Your task to perform on an android device: turn on the 12-hour format for clock Image 0: 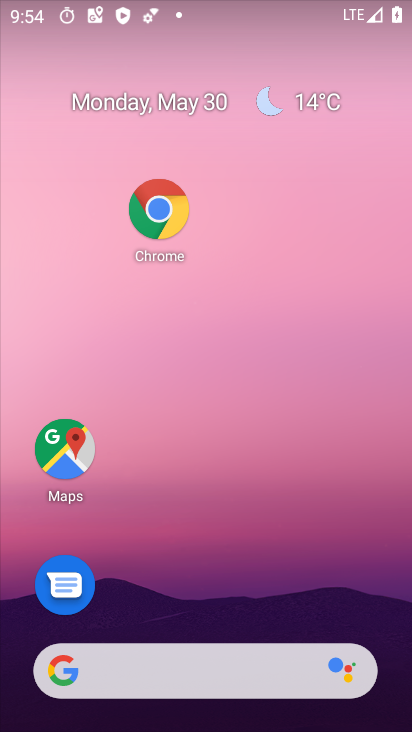
Step 0: drag from (251, 600) to (262, 2)
Your task to perform on an android device: turn on the 12-hour format for clock Image 1: 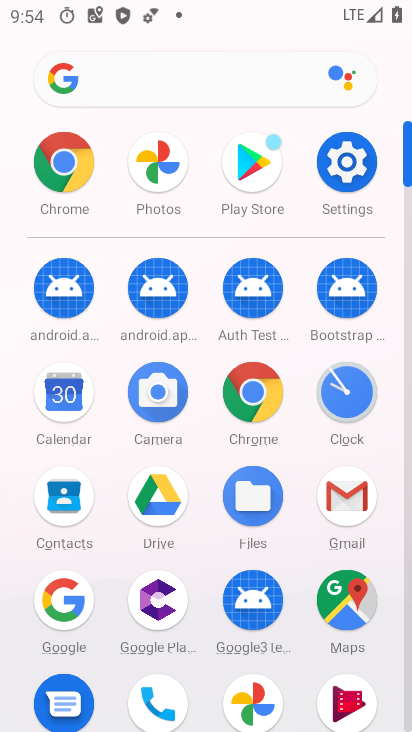
Step 1: click (344, 389)
Your task to perform on an android device: turn on the 12-hour format for clock Image 2: 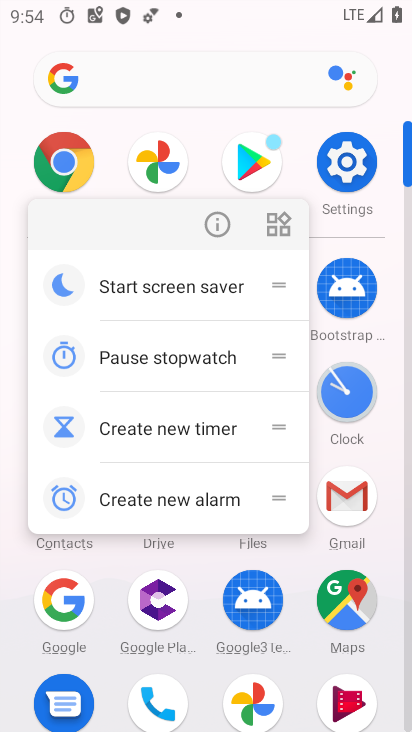
Step 2: click (211, 221)
Your task to perform on an android device: turn on the 12-hour format for clock Image 3: 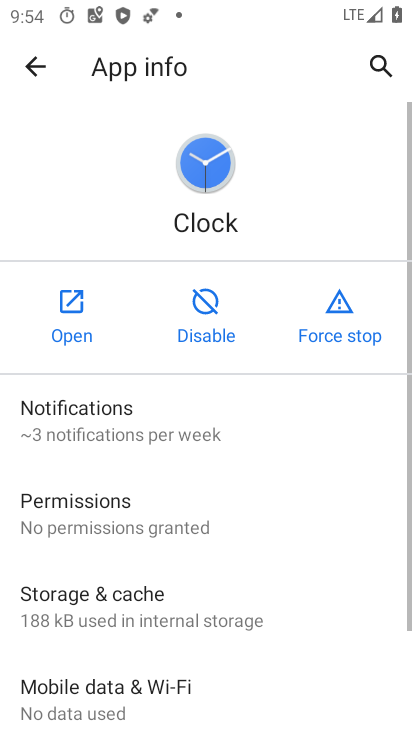
Step 3: click (79, 313)
Your task to perform on an android device: turn on the 12-hour format for clock Image 4: 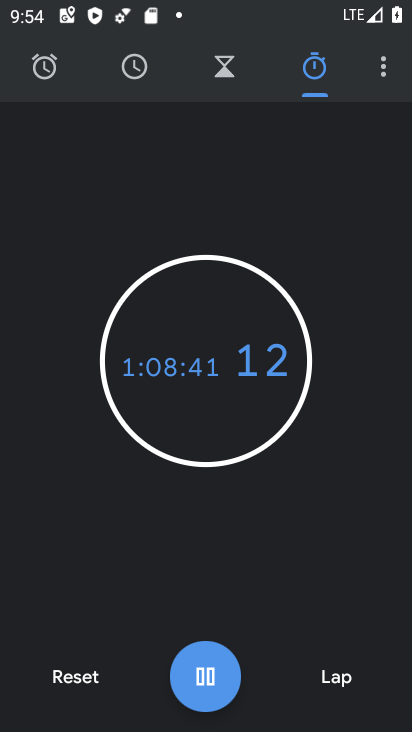
Step 4: click (386, 67)
Your task to perform on an android device: turn on the 12-hour format for clock Image 5: 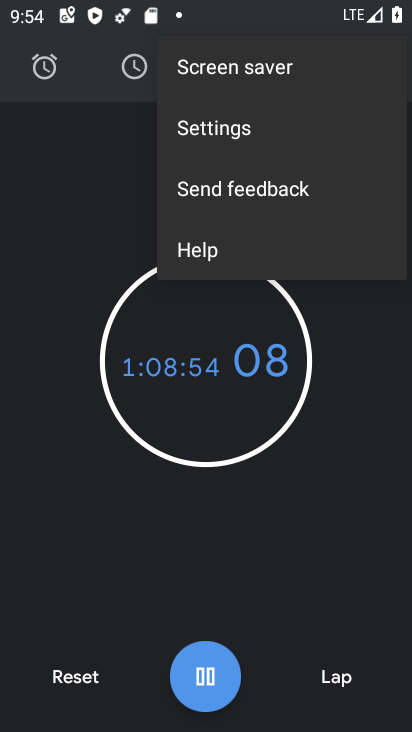
Step 5: click (240, 127)
Your task to perform on an android device: turn on the 12-hour format for clock Image 6: 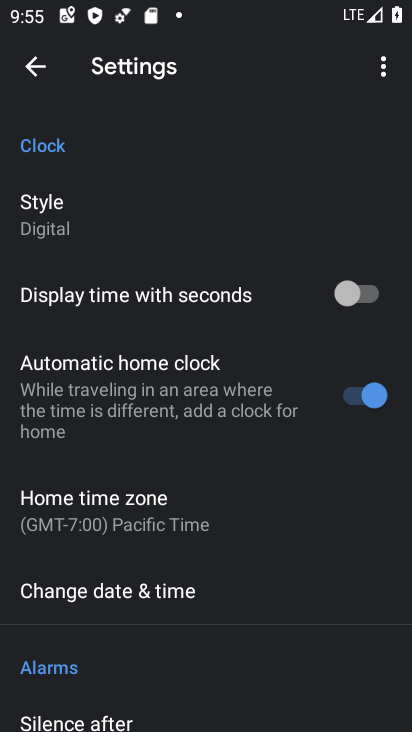
Step 6: click (181, 579)
Your task to perform on an android device: turn on the 12-hour format for clock Image 7: 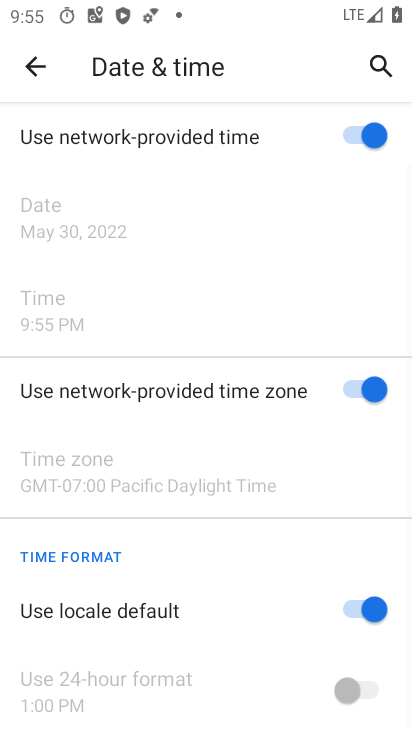
Step 7: drag from (141, 586) to (259, 88)
Your task to perform on an android device: turn on the 12-hour format for clock Image 8: 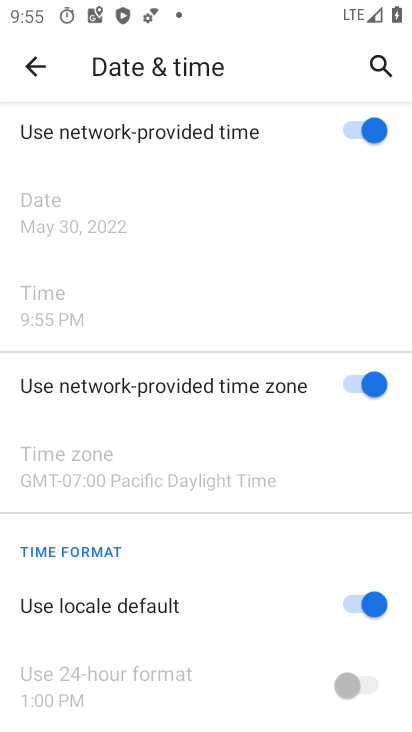
Step 8: drag from (133, 630) to (270, 115)
Your task to perform on an android device: turn on the 12-hour format for clock Image 9: 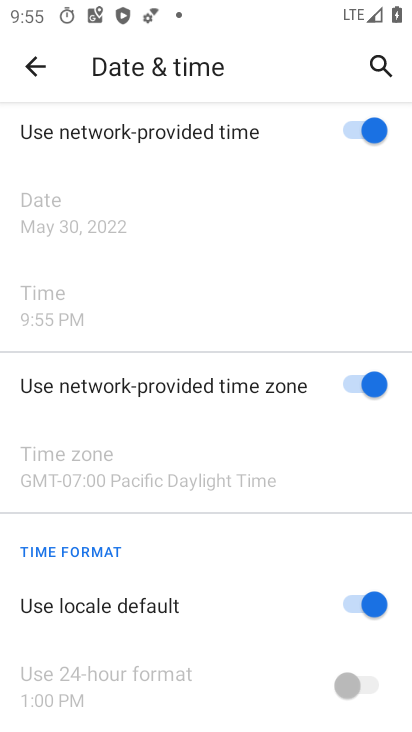
Step 9: click (365, 602)
Your task to perform on an android device: turn on the 12-hour format for clock Image 10: 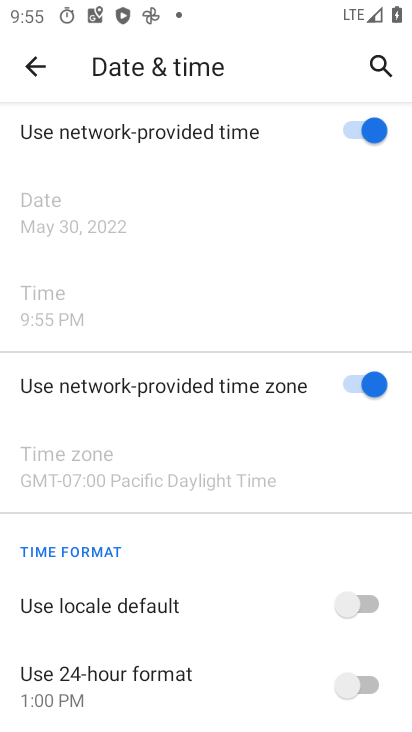
Step 10: click (365, 599)
Your task to perform on an android device: turn on the 12-hour format for clock Image 11: 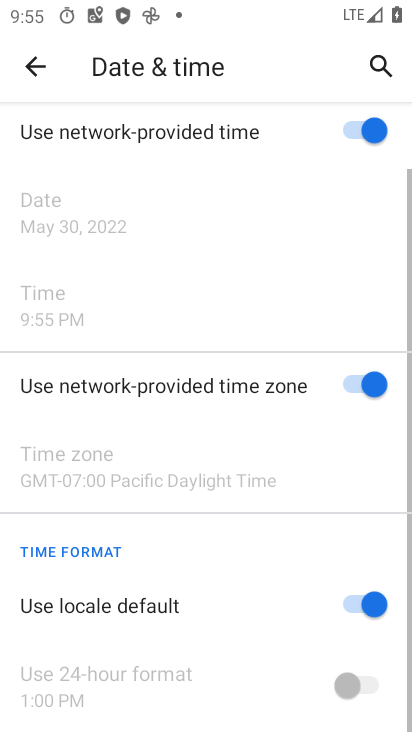
Step 11: task complete